Your task to perform on an android device: delete a single message in the gmail app Image 0: 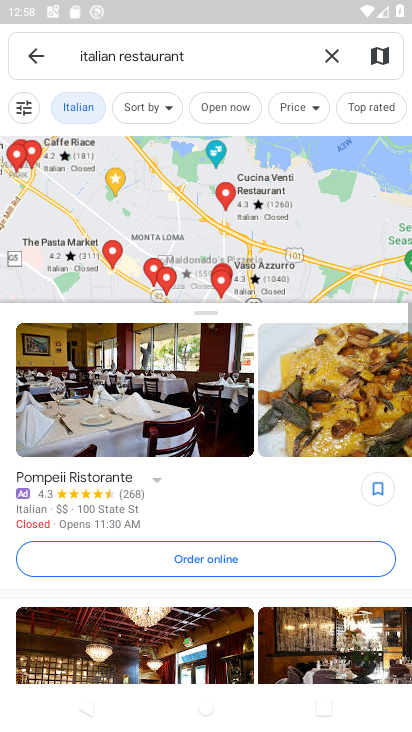
Step 0: press home button
Your task to perform on an android device: delete a single message in the gmail app Image 1: 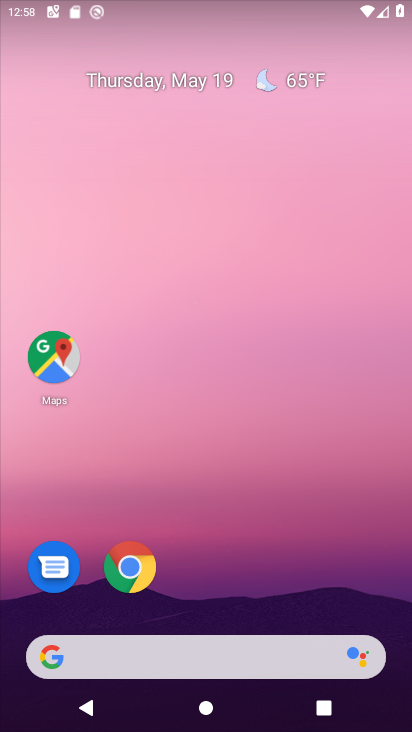
Step 1: drag from (261, 571) to (302, 52)
Your task to perform on an android device: delete a single message in the gmail app Image 2: 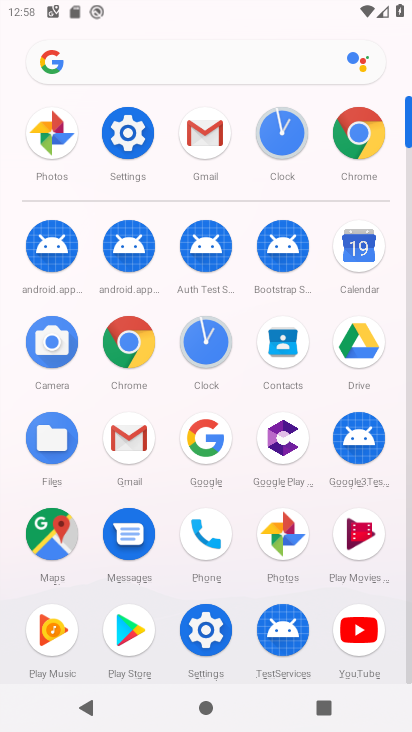
Step 2: click (121, 429)
Your task to perform on an android device: delete a single message in the gmail app Image 3: 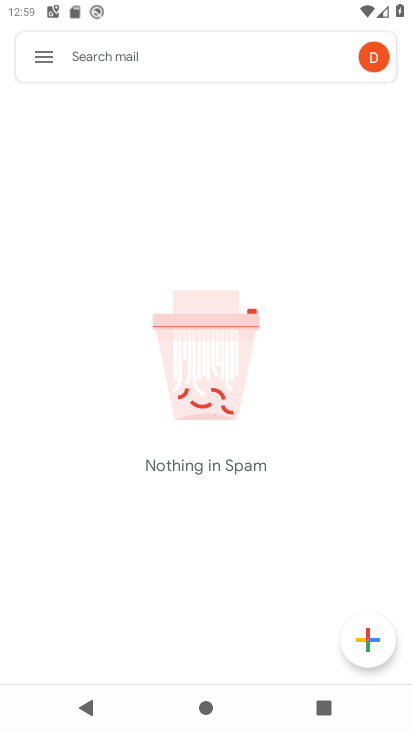
Step 3: click (48, 60)
Your task to perform on an android device: delete a single message in the gmail app Image 4: 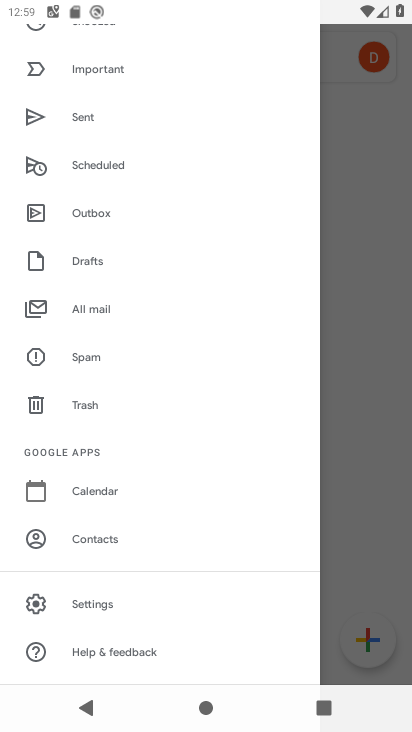
Step 4: click (102, 316)
Your task to perform on an android device: delete a single message in the gmail app Image 5: 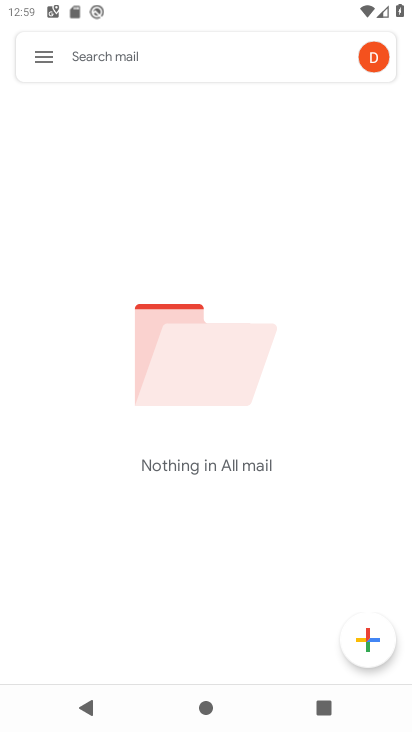
Step 5: task complete